Your task to perform on an android device: Open eBay Image 0: 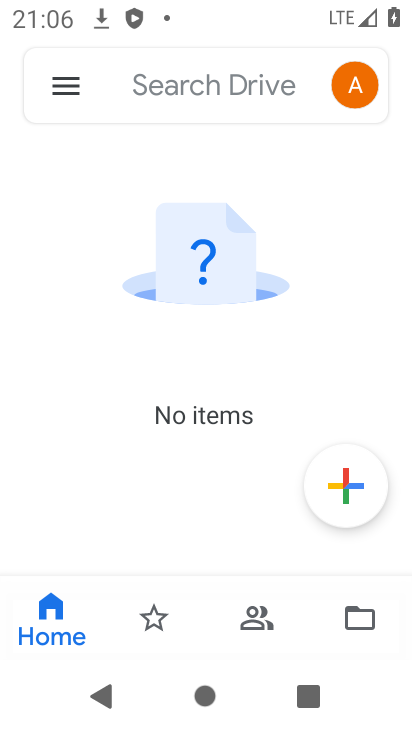
Step 0: drag from (177, 586) to (243, 88)
Your task to perform on an android device: Open eBay Image 1: 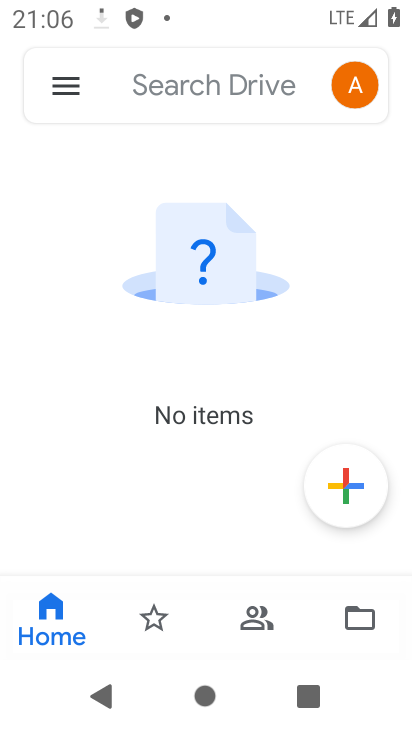
Step 1: press back button
Your task to perform on an android device: Open eBay Image 2: 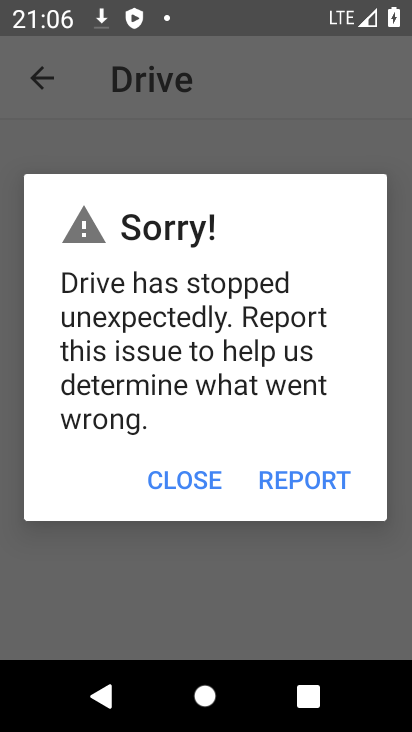
Step 2: click (189, 472)
Your task to perform on an android device: Open eBay Image 3: 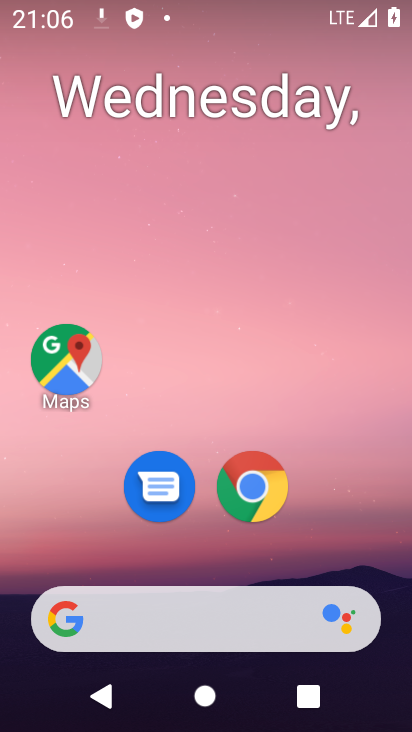
Step 3: click (255, 493)
Your task to perform on an android device: Open eBay Image 4: 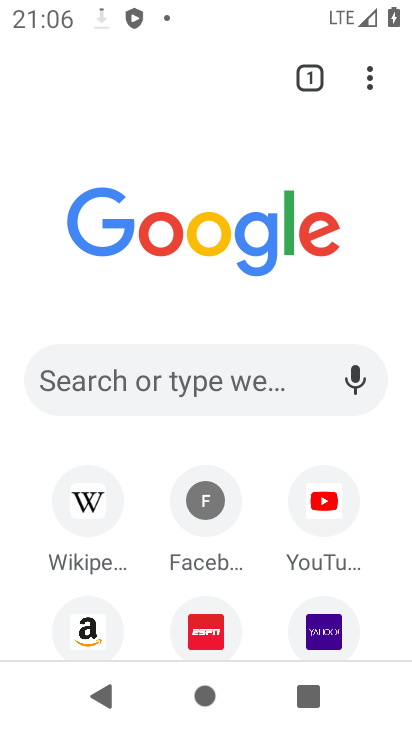
Step 4: click (122, 384)
Your task to perform on an android device: Open eBay Image 5: 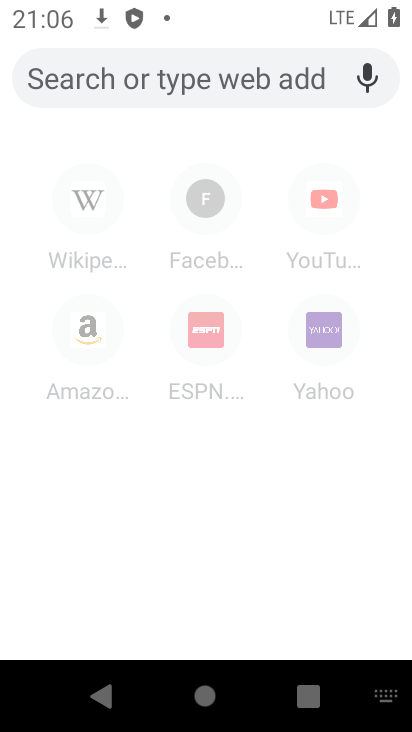
Step 5: type "ebay"
Your task to perform on an android device: Open eBay Image 6: 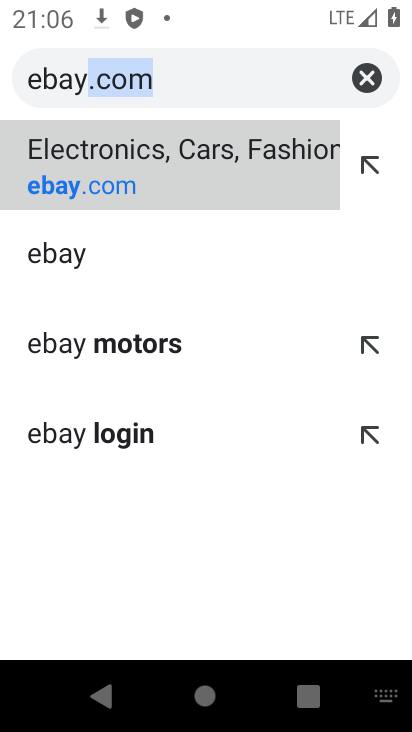
Step 6: click (166, 171)
Your task to perform on an android device: Open eBay Image 7: 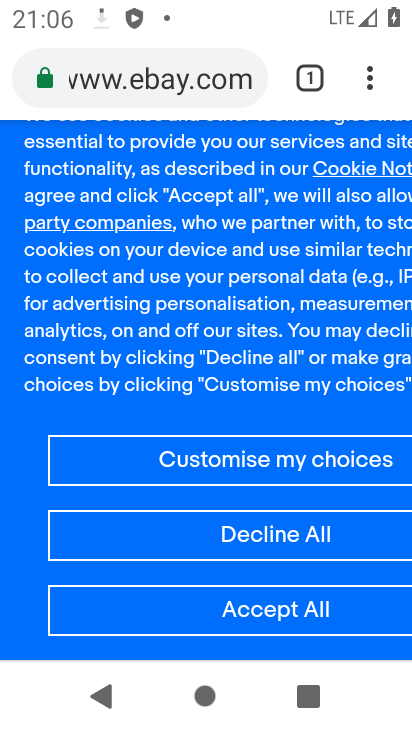
Step 7: task complete